Your task to perform on an android device: check the backup settings in the google photos Image 0: 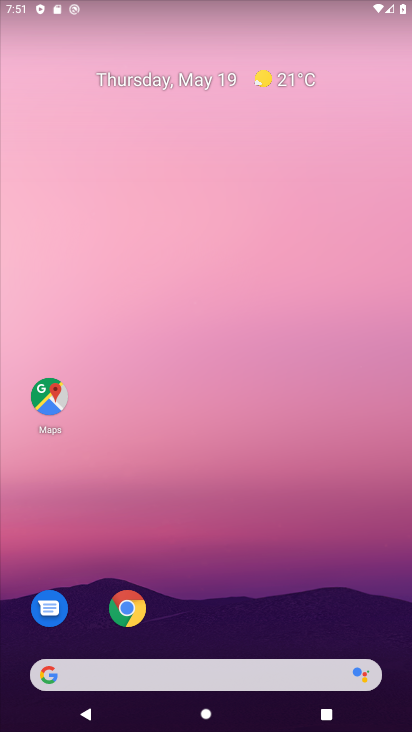
Step 0: drag from (270, 560) to (179, 226)
Your task to perform on an android device: check the backup settings in the google photos Image 1: 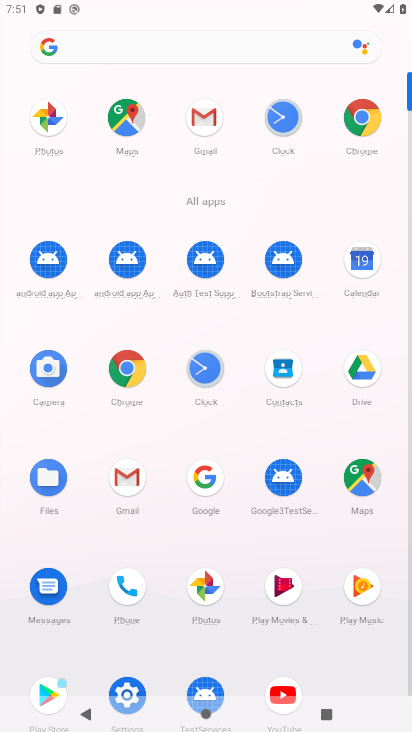
Step 1: click (43, 118)
Your task to perform on an android device: check the backup settings in the google photos Image 2: 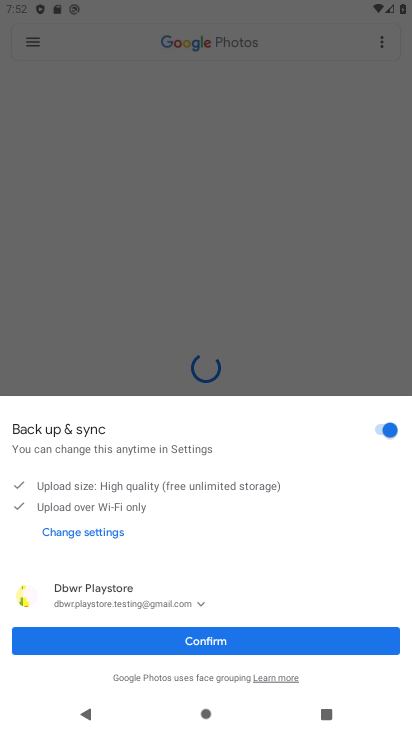
Step 2: click (184, 637)
Your task to perform on an android device: check the backup settings in the google photos Image 3: 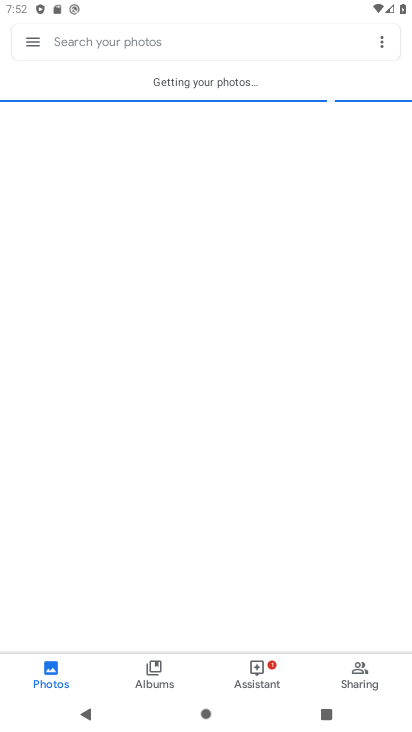
Step 3: click (25, 45)
Your task to perform on an android device: check the backup settings in the google photos Image 4: 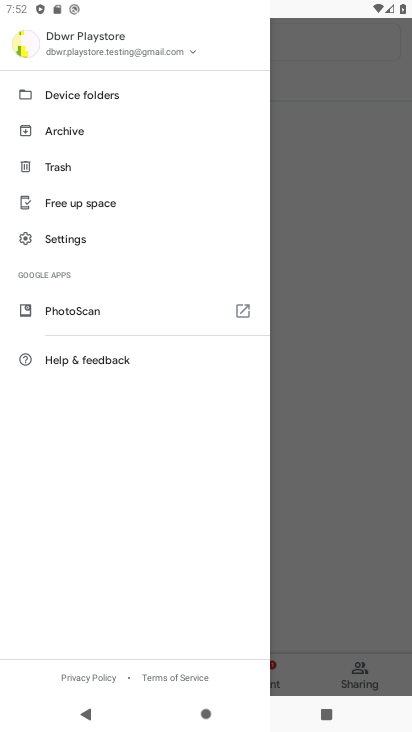
Step 4: click (66, 233)
Your task to perform on an android device: check the backup settings in the google photos Image 5: 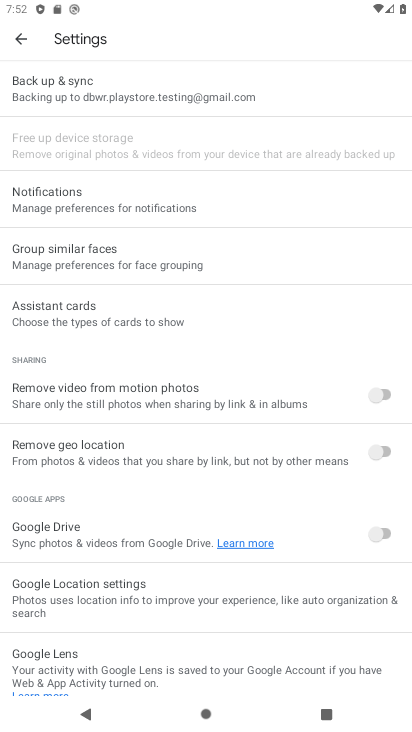
Step 5: click (43, 77)
Your task to perform on an android device: check the backup settings in the google photos Image 6: 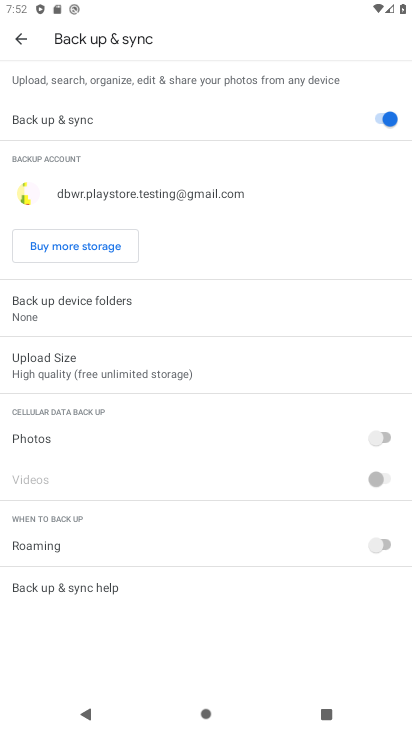
Step 6: task complete